Your task to perform on an android device: turn vacation reply on in the gmail app Image 0: 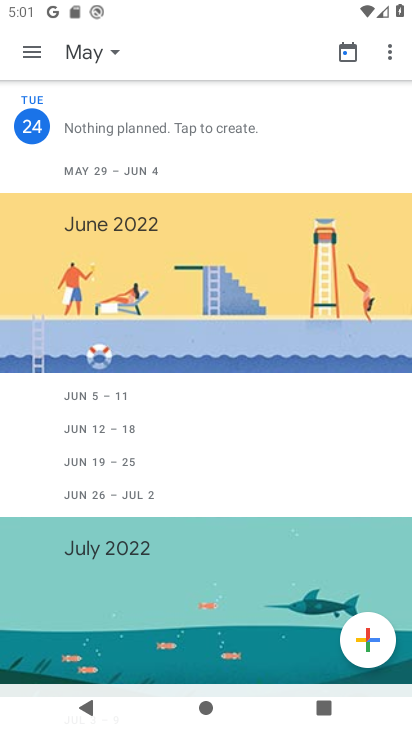
Step 0: press home button
Your task to perform on an android device: turn vacation reply on in the gmail app Image 1: 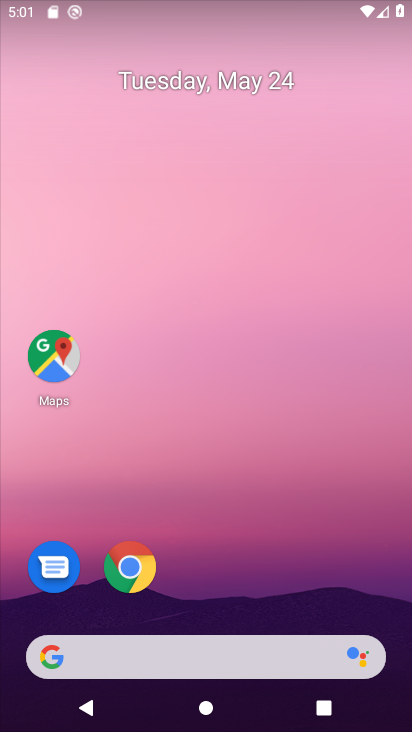
Step 1: drag from (223, 587) to (212, 101)
Your task to perform on an android device: turn vacation reply on in the gmail app Image 2: 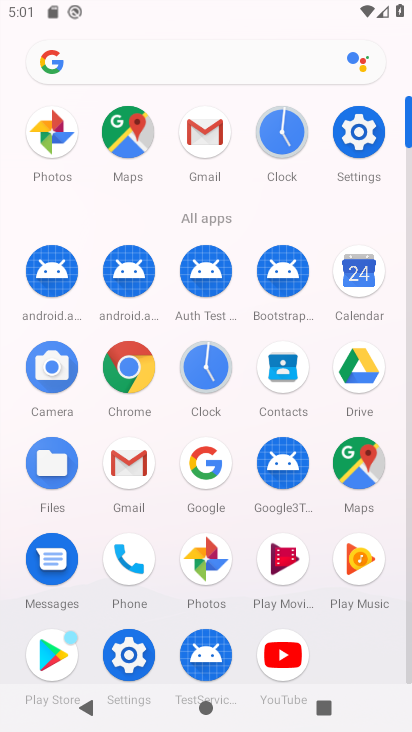
Step 2: click (206, 131)
Your task to perform on an android device: turn vacation reply on in the gmail app Image 3: 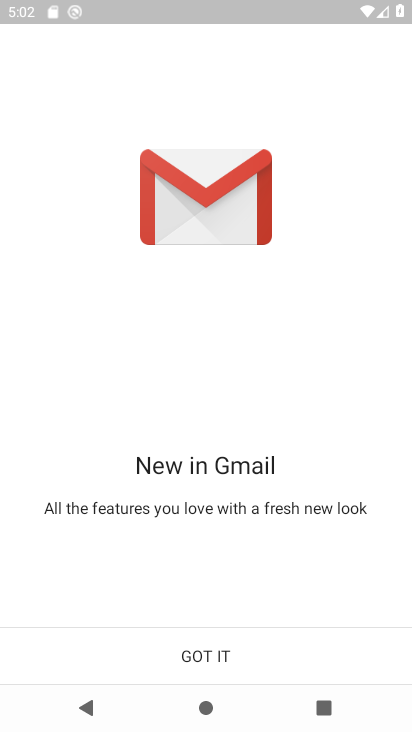
Step 3: click (201, 646)
Your task to perform on an android device: turn vacation reply on in the gmail app Image 4: 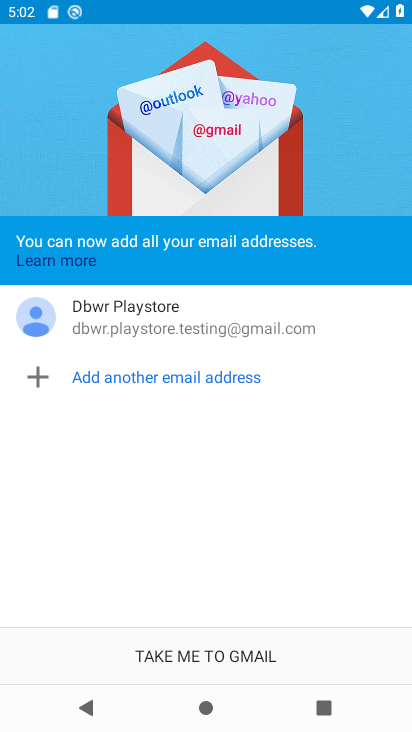
Step 4: click (201, 646)
Your task to perform on an android device: turn vacation reply on in the gmail app Image 5: 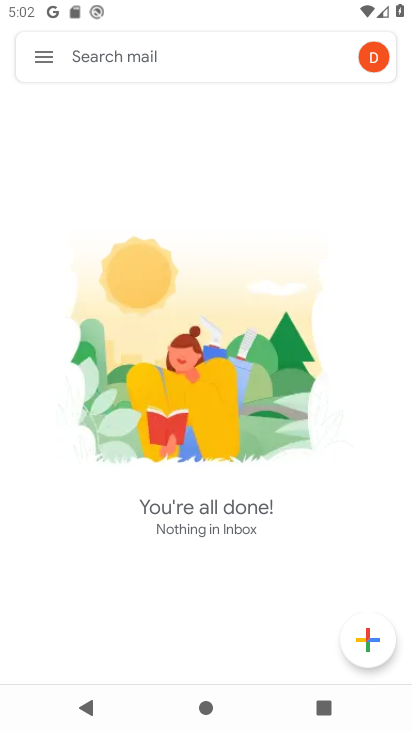
Step 5: click (38, 63)
Your task to perform on an android device: turn vacation reply on in the gmail app Image 6: 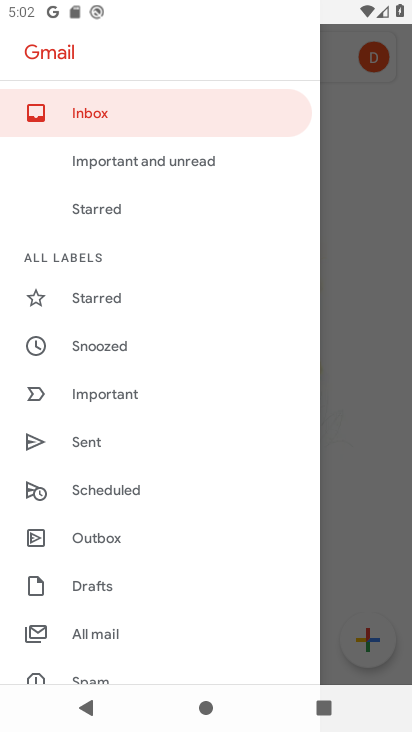
Step 6: drag from (117, 574) to (175, 454)
Your task to perform on an android device: turn vacation reply on in the gmail app Image 7: 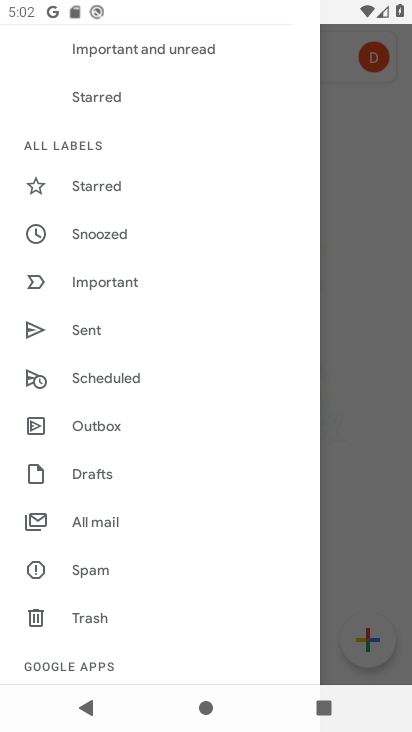
Step 7: drag from (102, 629) to (167, 538)
Your task to perform on an android device: turn vacation reply on in the gmail app Image 8: 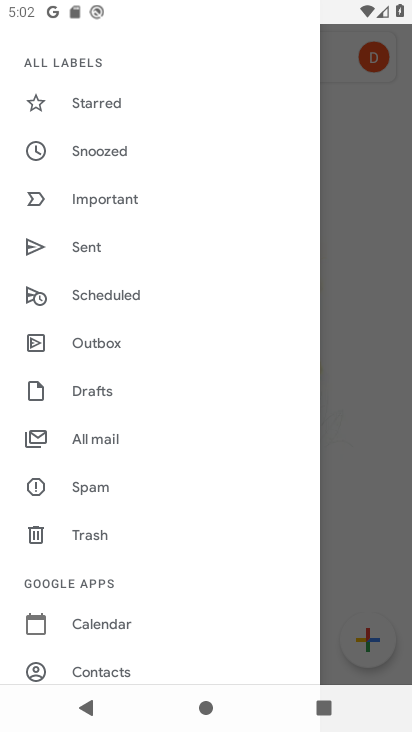
Step 8: drag from (85, 642) to (168, 520)
Your task to perform on an android device: turn vacation reply on in the gmail app Image 9: 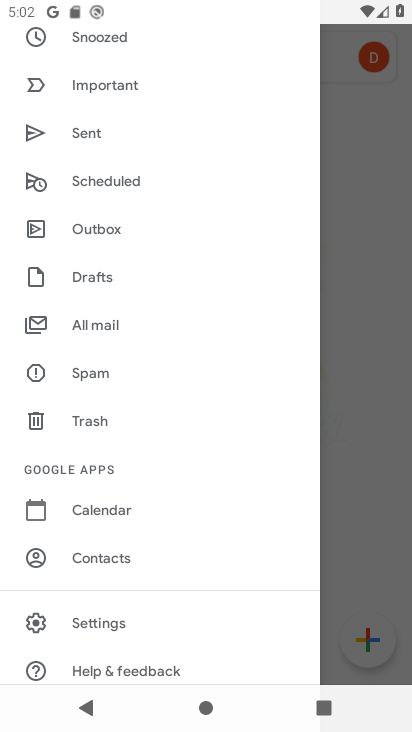
Step 9: click (81, 616)
Your task to perform on an android device: turn vacation reply on in the gmail app Image 10: 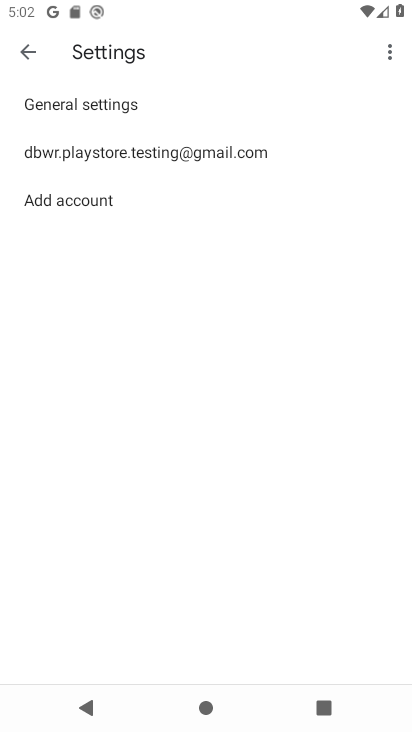
Step 10: click (152, 147)
Your task to perform on an android device: turn vacation reply on in the gmail app Image 11: 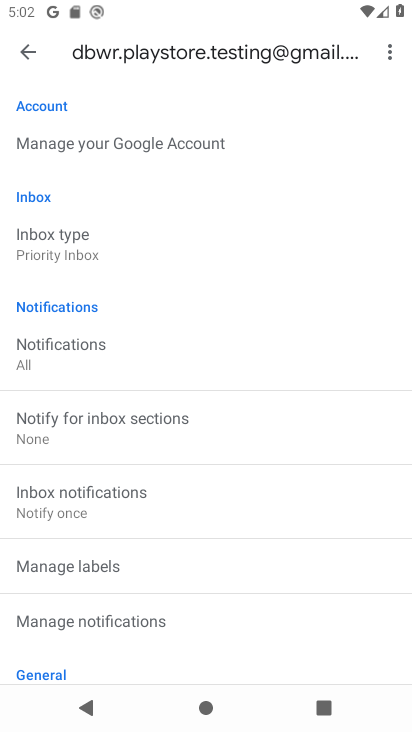
Step 11: drag from (98, 523) to (179, 407)
Your task to perform on an android device: turn vacation reply on in the gmail app Image 12: 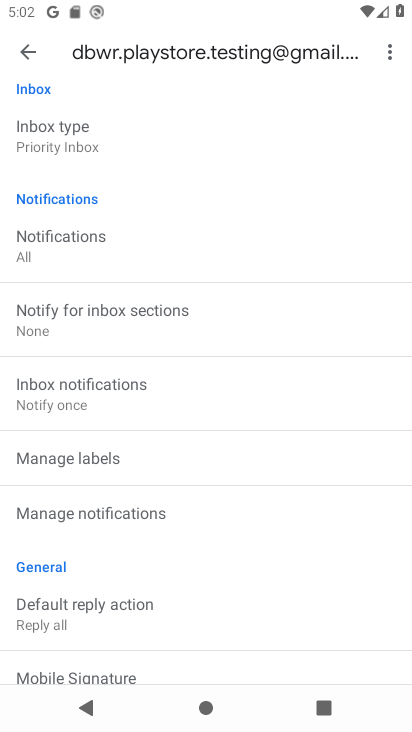
Step 12: drag from (82, 556) to (146, 481)
Your task to perform on an android device: turn vacation reply on in the gmail app Image 13: 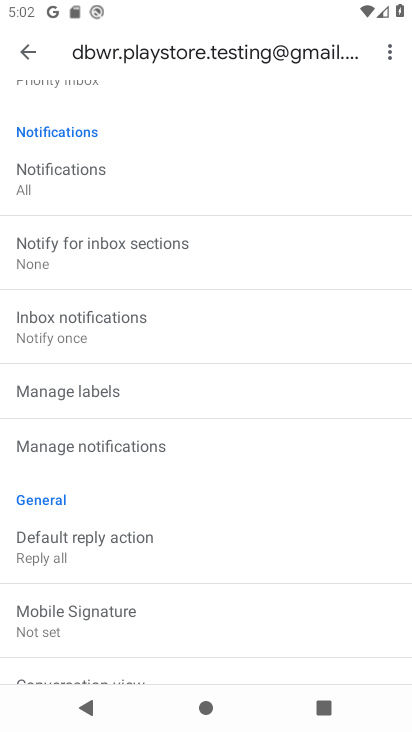
Step 13: drag from (82, 585) to (157, 498)
Your task to perform on an android device: turn vacation reply on in the gmail app Image 14: 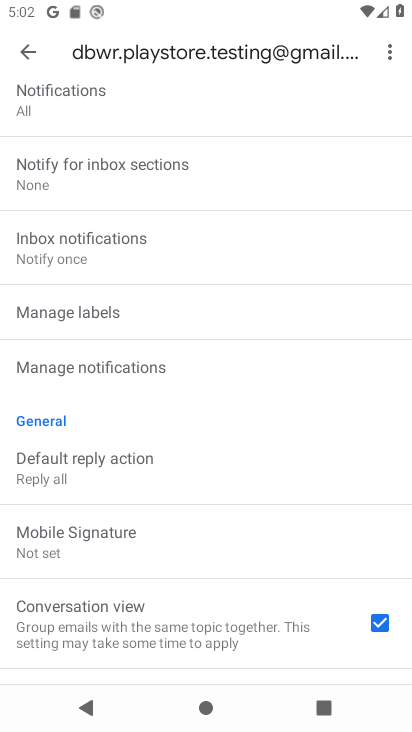
Step 14: drag from (78, 591) to (152, 484)
Your task to perform on an android device: turn vacation reply on in the gmail app Image 15: 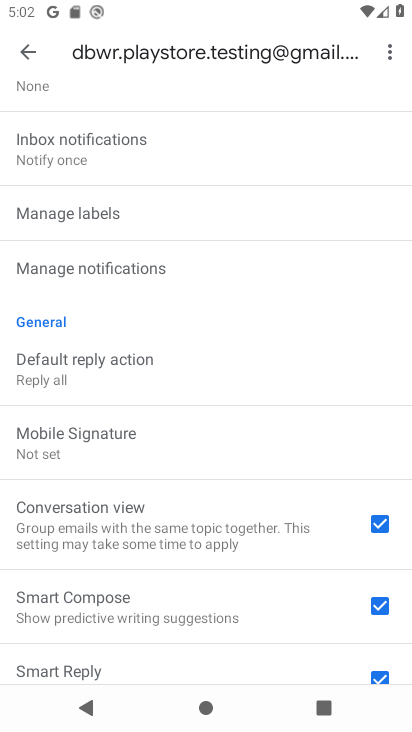
Step 15: drag from (83, 633) to (182, 518)
Your task to perform on an android device: turn vacation reply on in the gmail app Image 16: 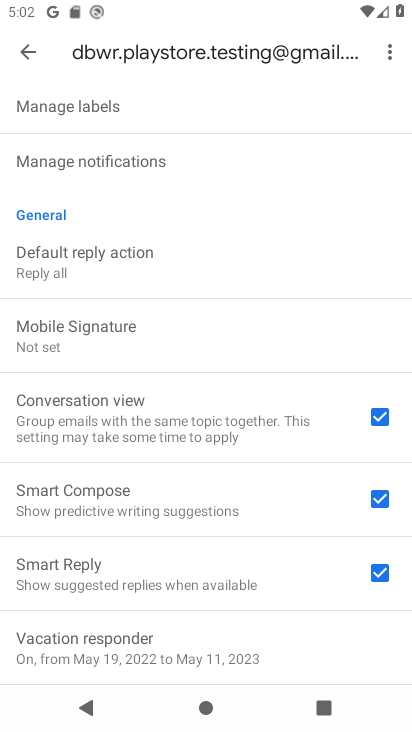
Step 16: drag from (76, 617) to (152, 530)
Your task to perform on an android device: turn vacation reply on in the gmail app Image 17: 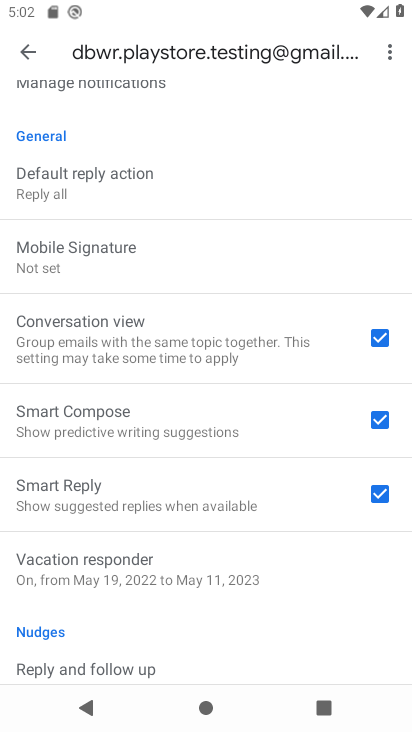
Step 17: click (127, 567)
Your task to perform on an android device: turn vacation reply on in the gmail app Image 18: 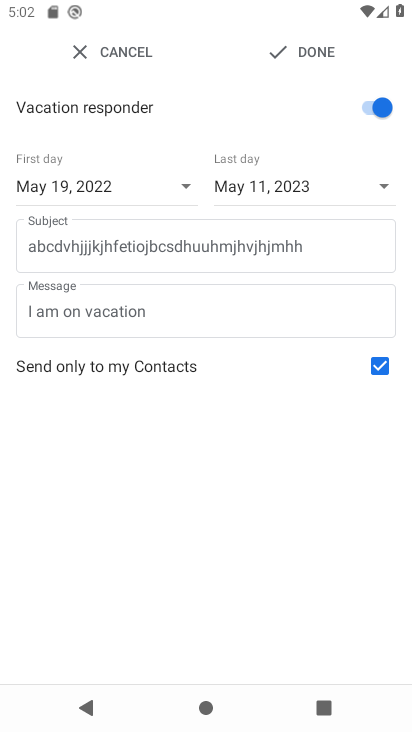
Step 18: task complete